Your task to perform on an android device: install app "PUBG MOBILE" Image 0: 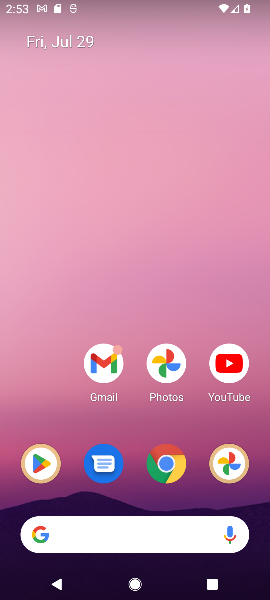
Step 0: drag from (99, 538) to (106, 145)
Your task to perform on an android device: install app "PUBG MOBILE" Image 1: 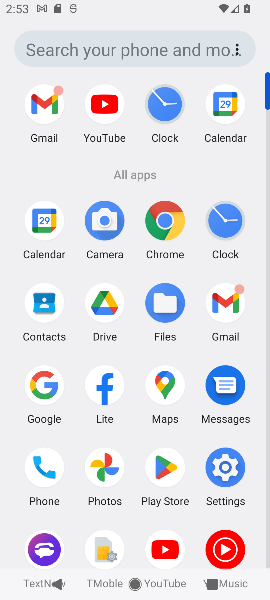
Step 1: drag from (133, 544) to (134, 445)
Your task to perform on an android device: install app "PUBG MOBILE" Image 2: 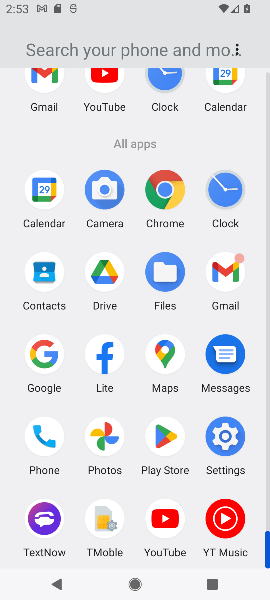
Step 2: click (166, 438)
Your task to perform on an android device: install app "PUBG MOBILE" Image 3: 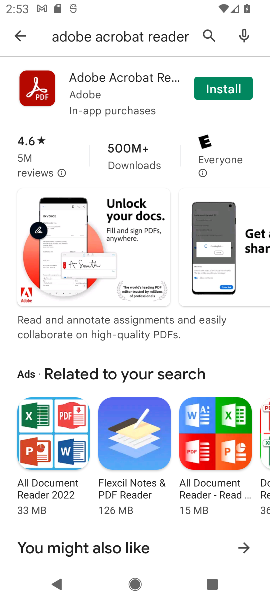
Step 3: click (204, 29)
Your task to perform on an android device: install app "PUBG MOBILE" Image 4: 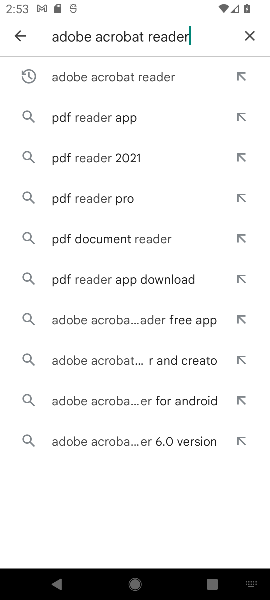
Step 4: click (251, 39)
Your task to perform on an android device: install app "PUBG MOBILE" Image 5: 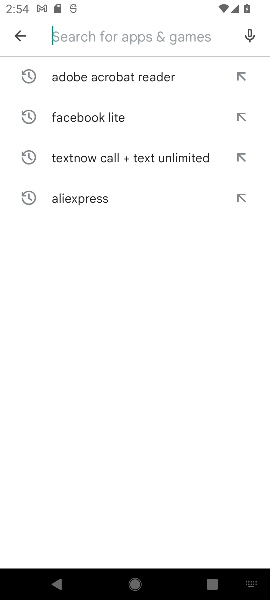
Step 5: type "PUBG MOBiLE"
Your task to perform on an android device: install app "PUBG MOBILE" Image 6: 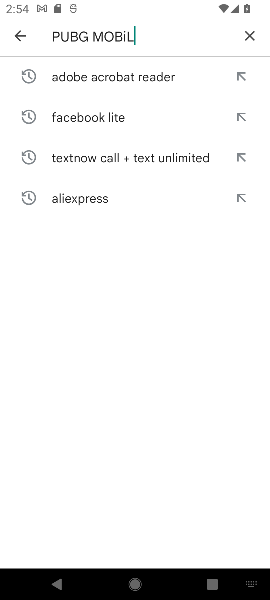
Step 6: type ""
Your task to perform on an android device: install app "PUBG MOBILE" Image 7: 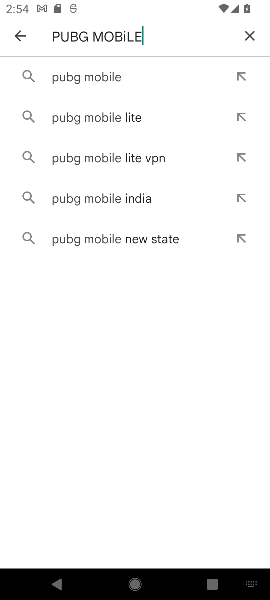
Step 7: click (98, 79)
Your task to perform on an android device: install app "PUBG MOBILE" Image 8: 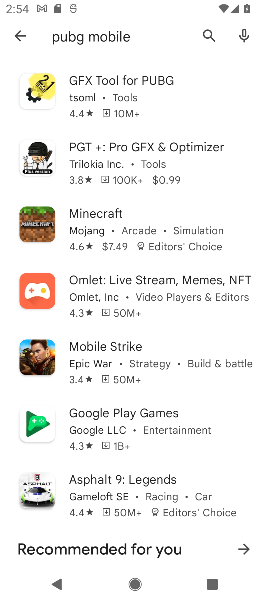
Step 8: task complete